Your task to perform on an android device: turn on showing notifications on the lock screen Image 0: 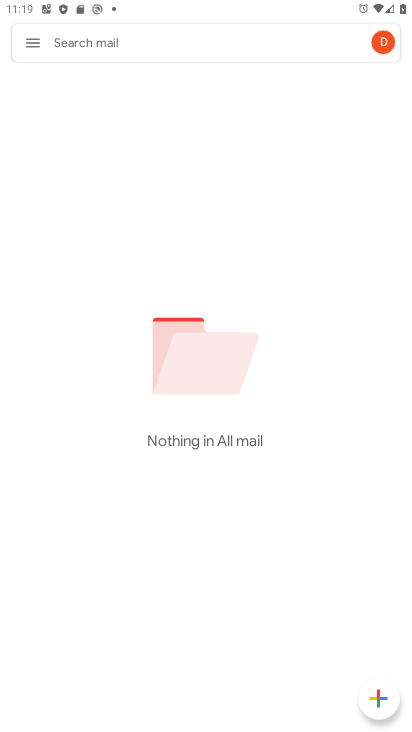
Step 0: press home button
Your task to perform on an android device: turn on showing notifications on the lock screen Image 1: 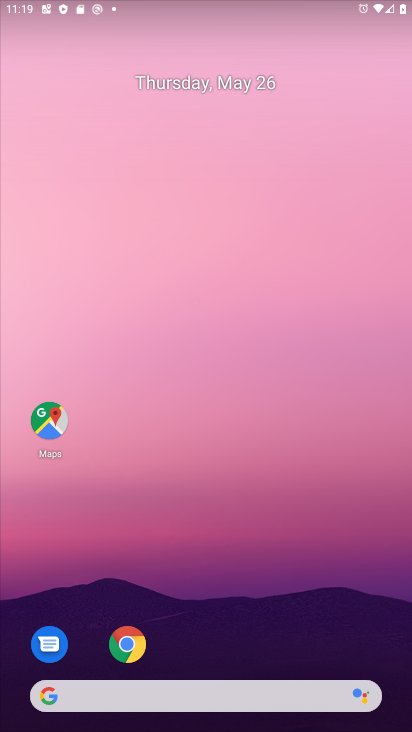
Step 1: drag from (191, 658) to (186, 256)
Your task to perform on an android device: turn on showing notifications on the lock screen Image 2: 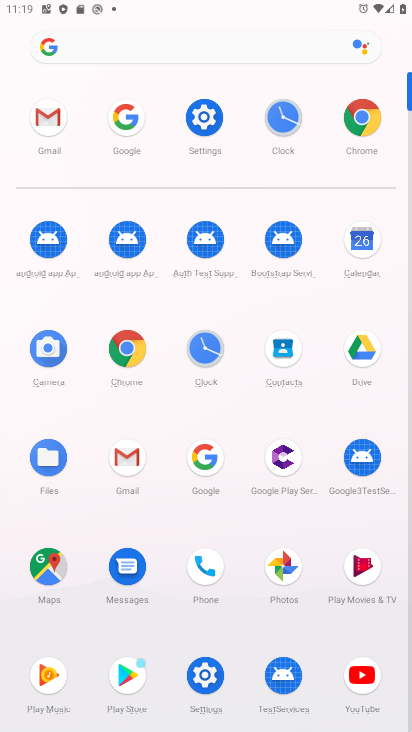
Step 2: click (209, 115)
Your task to perform on an android device: turn on showing notifications on the lock screen Image 3: 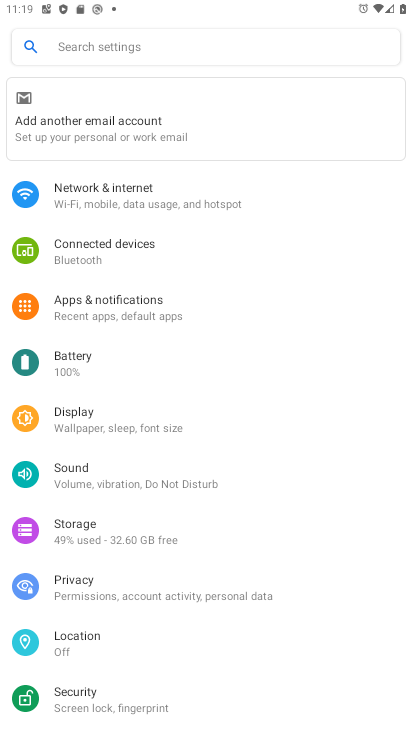
Step 3: click (153, 297)
Your task to perform on an android device: turn on showing notifications on the lock screen Image 4: 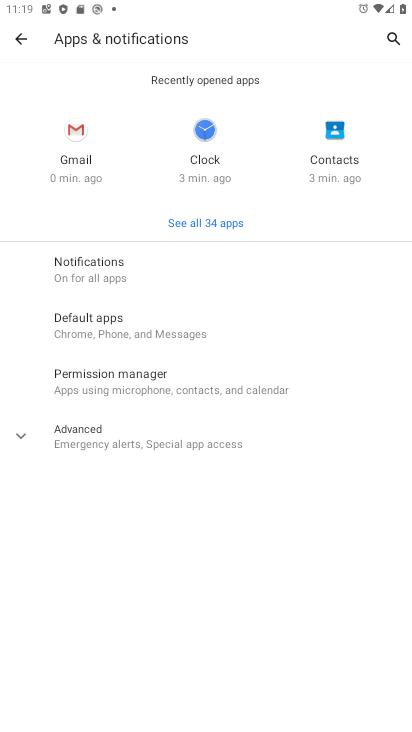
Step 4: click (154, 282)
Your task to perform on an android device: turn on showing notifications on the lock screen Image 5: 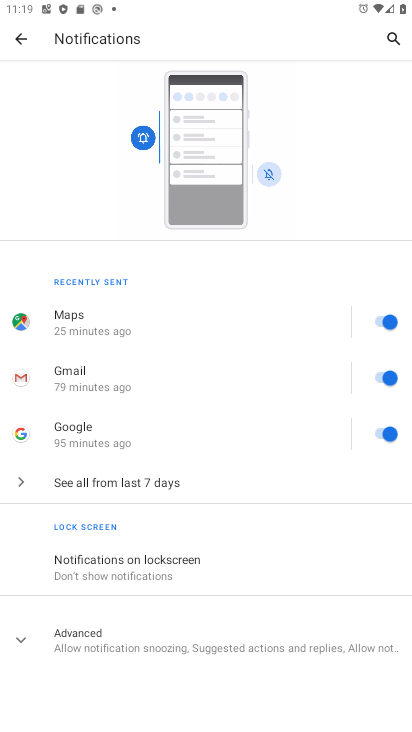
Step 5: click (174, 582)
Your task to perform on an android device: turn on showing notifications on the lock screen Image 6: 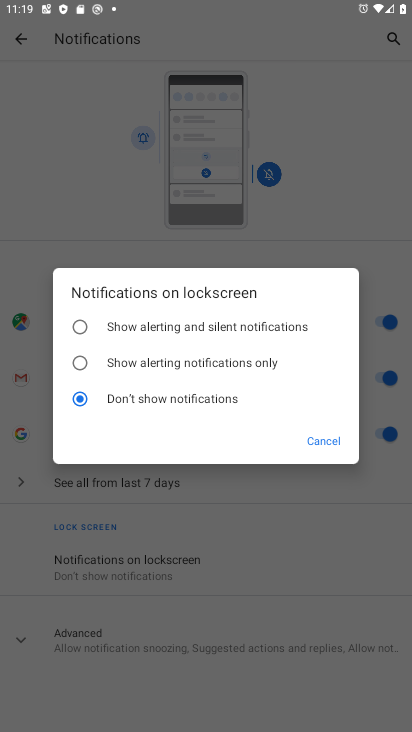
Step 6: click (131, 329)
Your task to perform on an android device: turn on showing notifications on the lock screen Image 7: 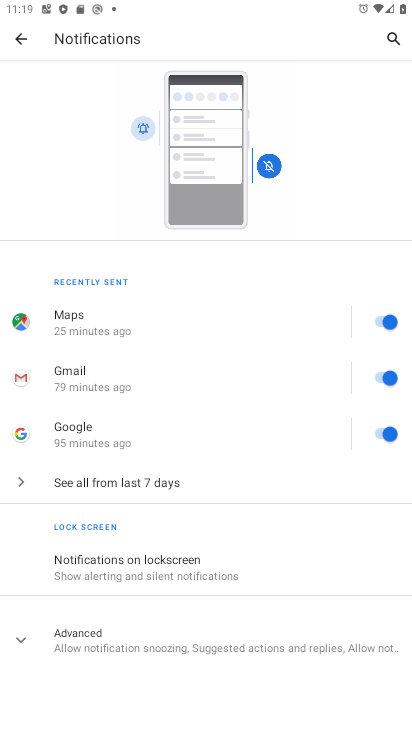
Step 7: task complete